Your task to perform on an android device: add a contact Image 0: 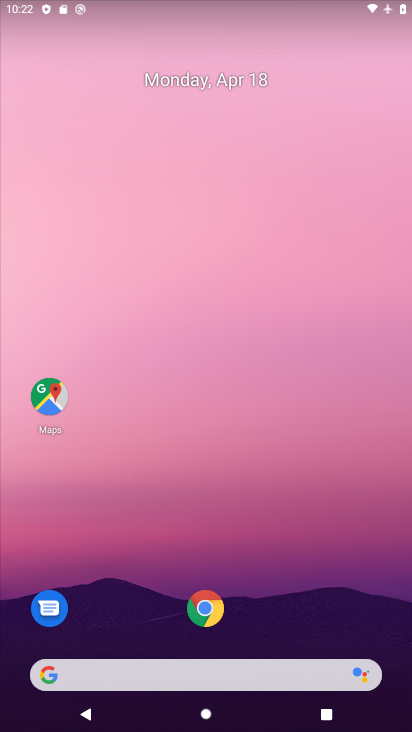
Step 0: drag from (294, 623) to (268, 165)
Your task to perform on an android device: add a contact Image 1: 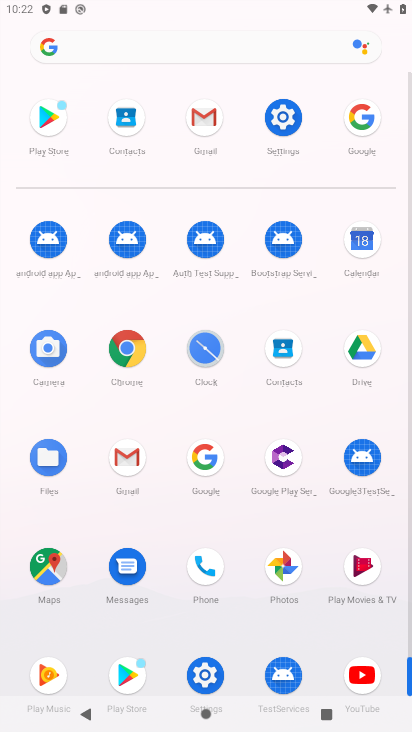
Step 1: click (277, 355)
Your task to perform on an android device: add a contact Image 2: 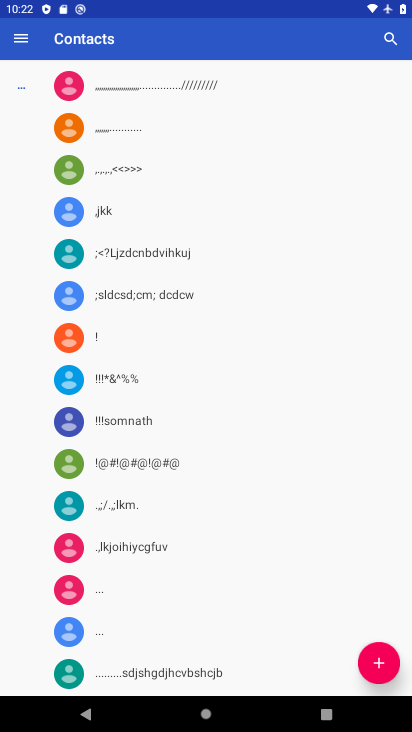
Step 2: click (377, 660)
Your task to perform on an android device: add a contact Image 3: 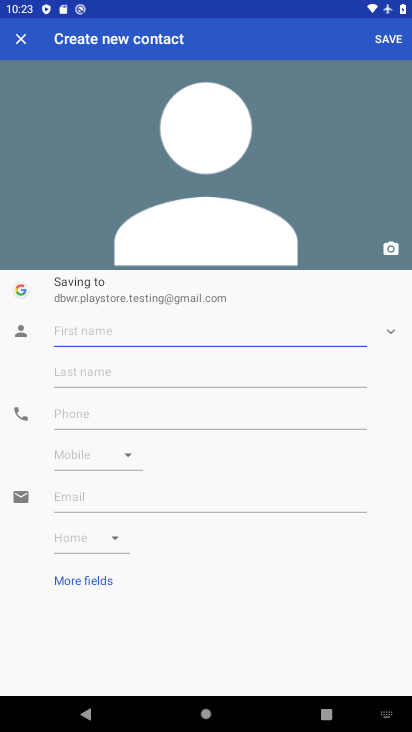
Step 3: type "pushpa"
Your task to perform on an android device: add a contact Image 4: 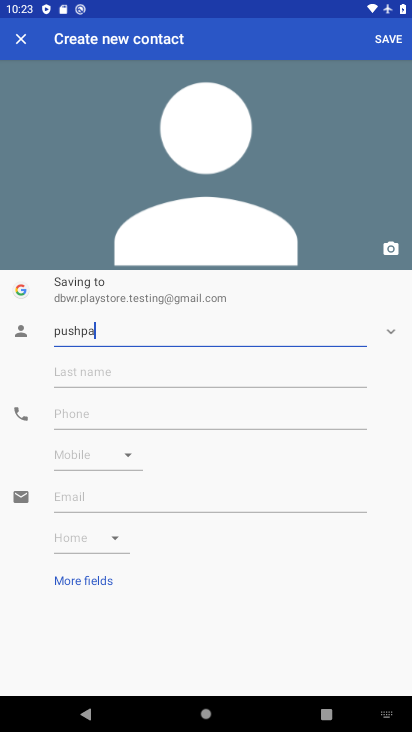
Step 4: click (98, 410)
Your task to perform on an android device: add a contact Image 5: 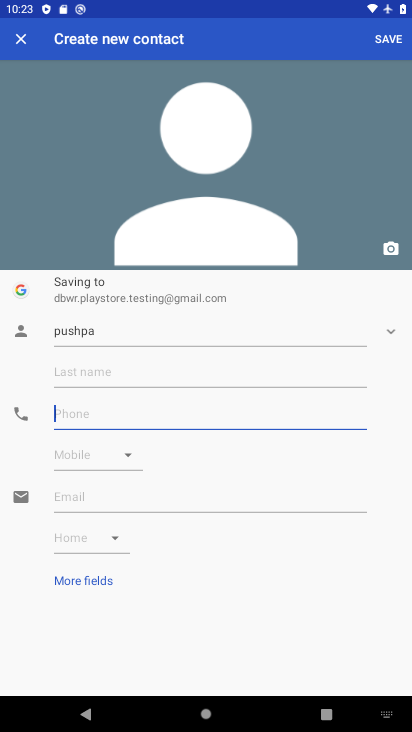
Step 5: type "9875646567"
Your task to perform on an android device: add a contact Image 6: 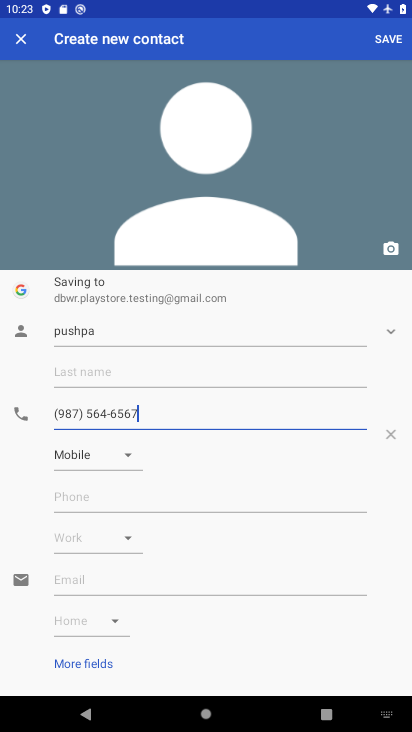
Step 6: click (391, 38)
Your task to perform on an android device: add a contact Image 7: 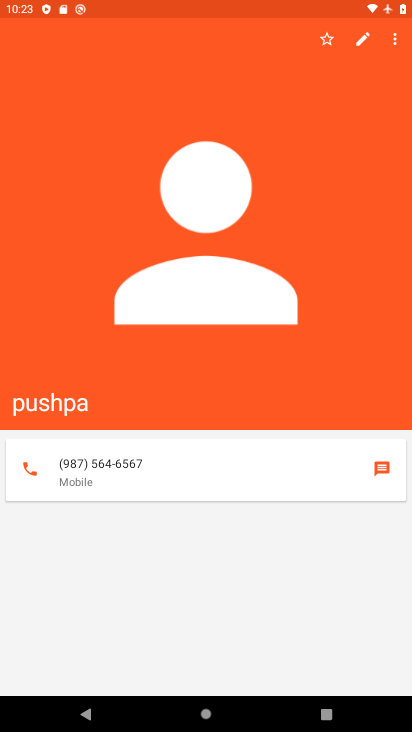
Step 7: task complete